Your task to perform on an android device: Search for vegetarian restaurants on Maps Image 0: 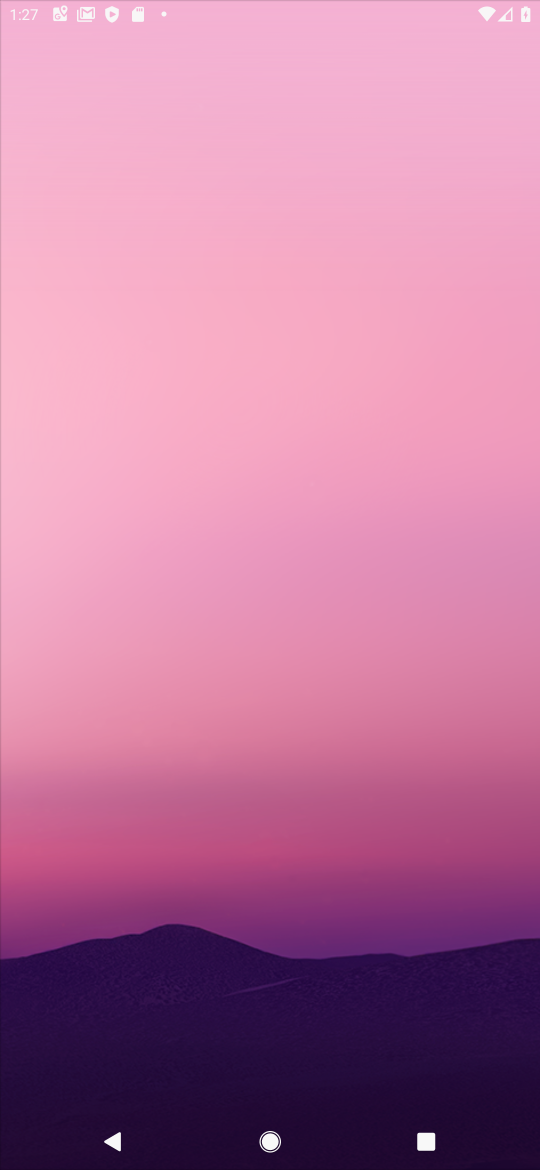
Step 0: press home button
Your task to perform on an android device: Search for vegetarian restaurants on Maps Image 1: 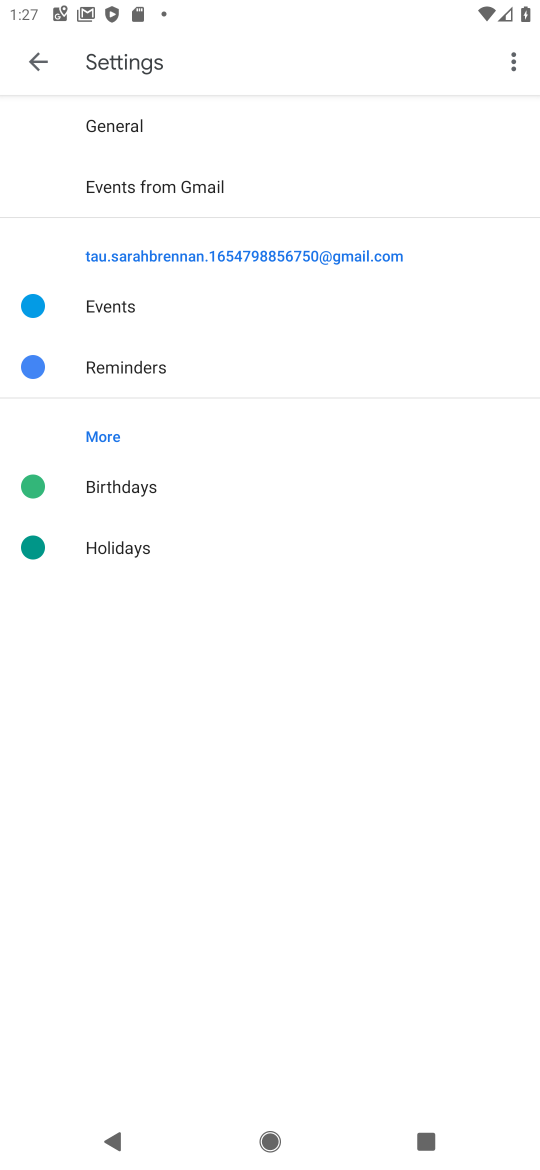
Step 1: drag from (225, 379) to (225, 209)
Your task to perform on an android device: Search for vegetarian restaurants on Maps Image 2: 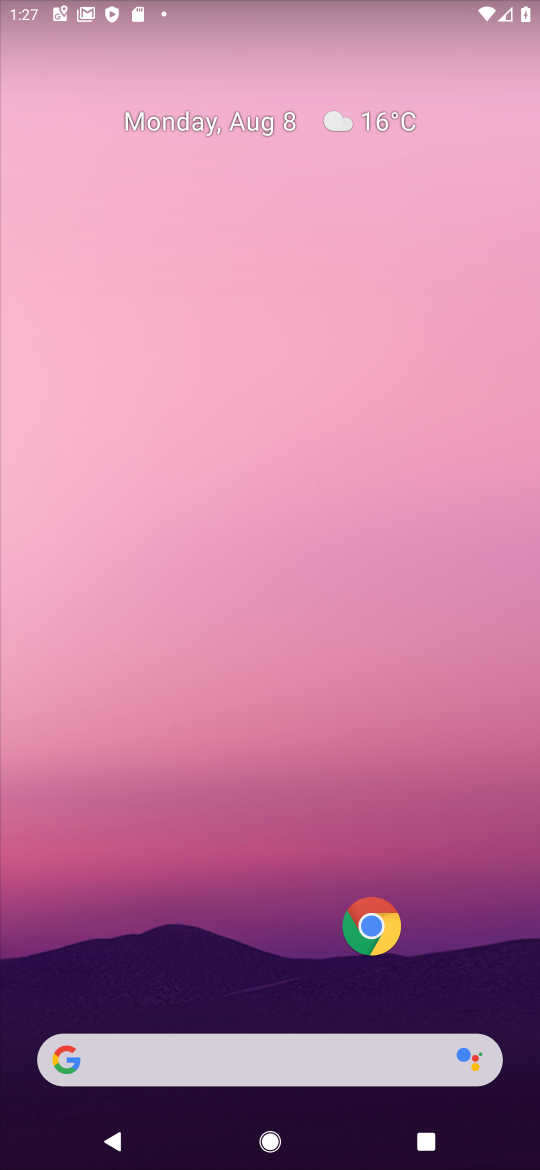
Step 2: drag from (263, 1005) to (302, 179)
Your task to perform on an android device: Search for vegetarian restaurants on Maps Image 3: 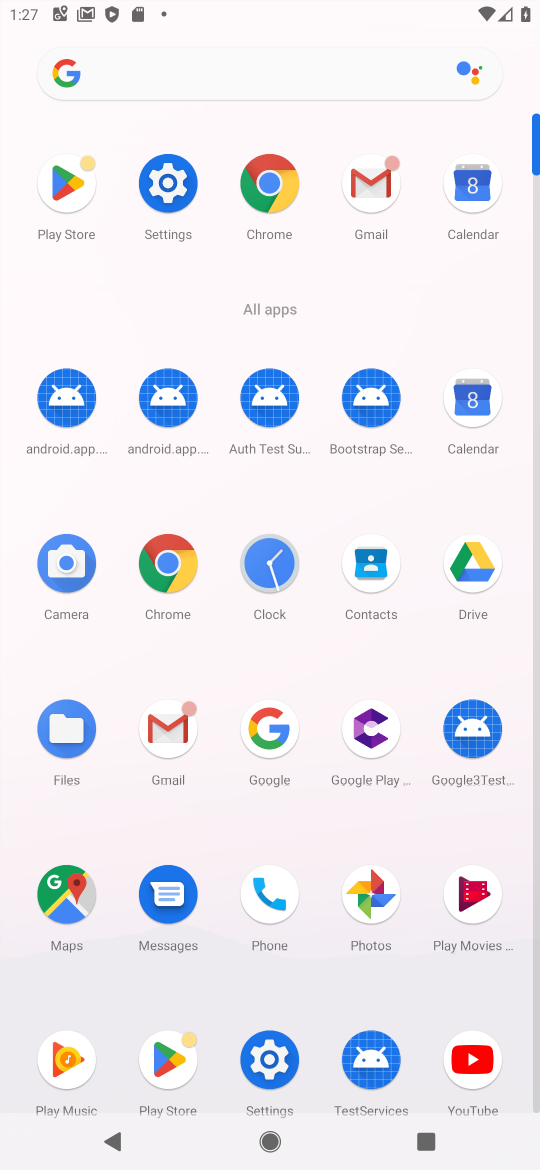
Step 3: click (161, 186)
Your task to perform on an android device: Search for vegetarian restaurants on Maps Image 4: 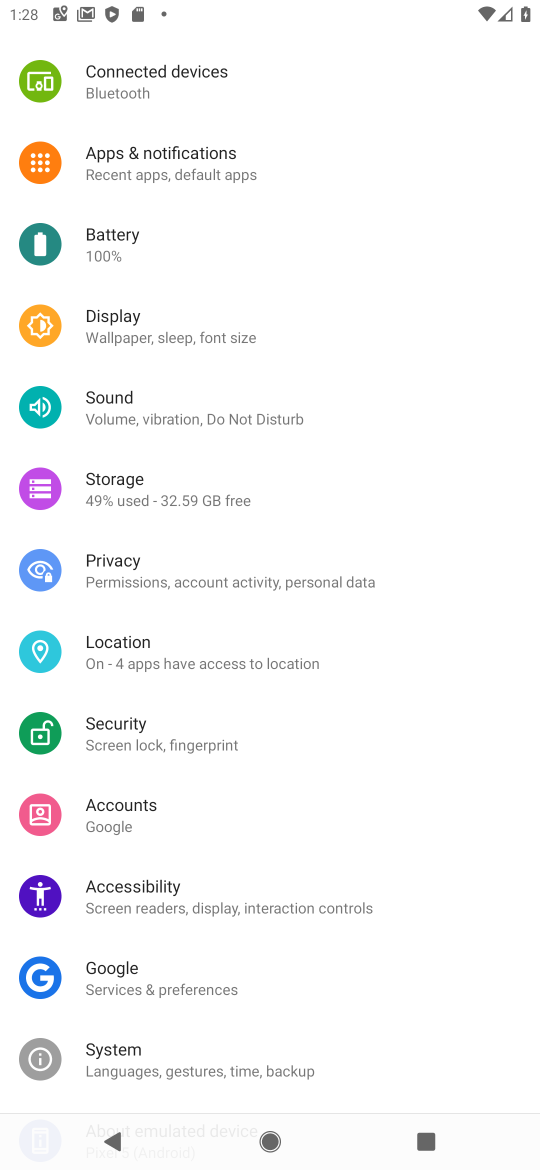
Step 4: press home button
Your task to perform on an android device: Search for vegetarian restaurants on Maps Image 5: 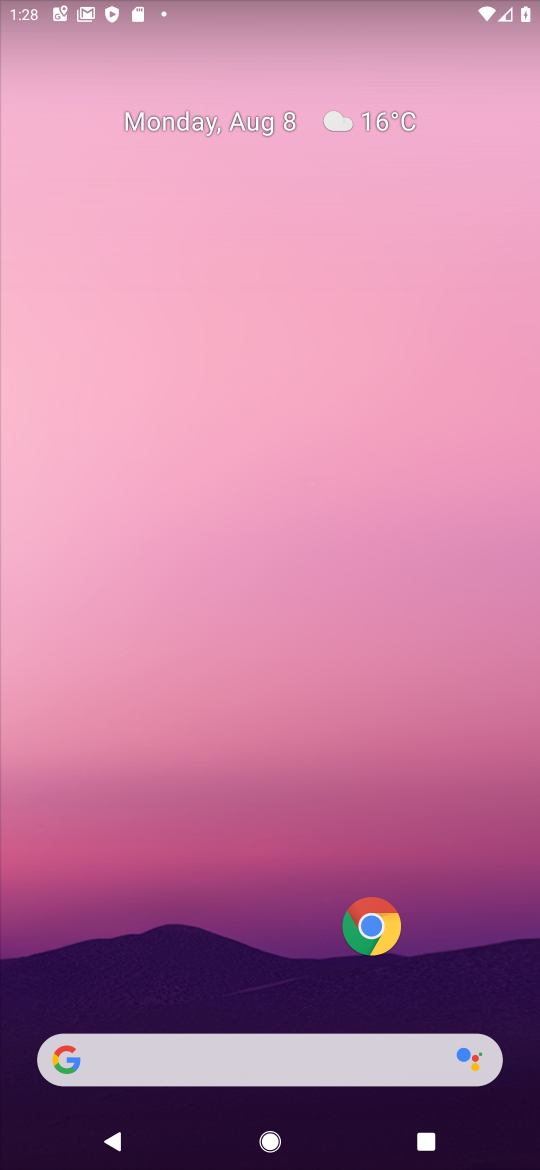
Step 5: drag from (223, 972) to (305, 224)
Your task to perform on an android device: Search for vegetarian restaurants on Maps Image 6: 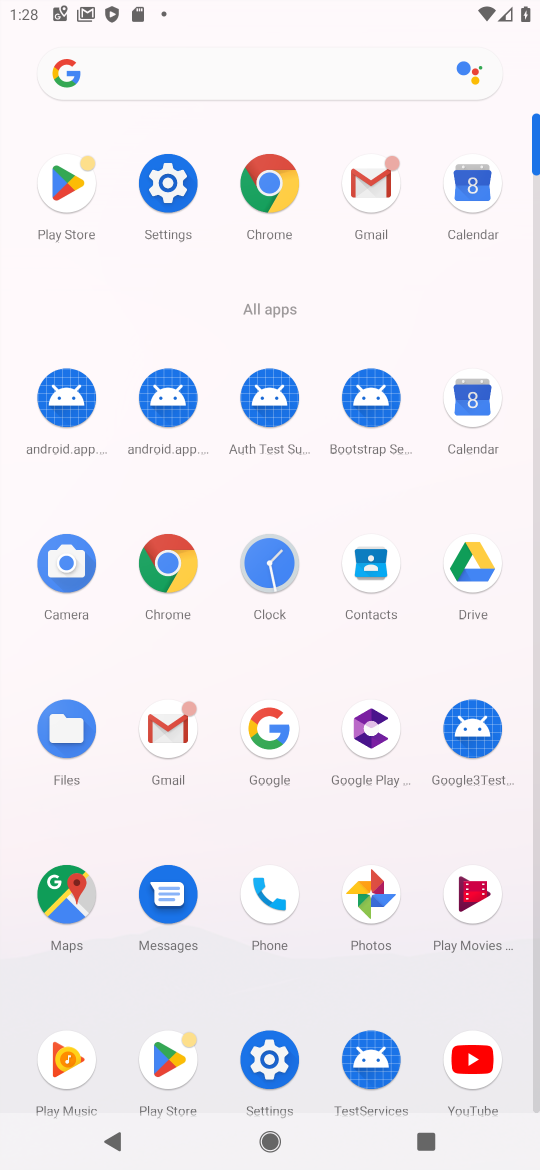
Step 6: click (73, 889)
Your task to perform on an android device: Search for vegetarian restaurants on Maps Image 7: 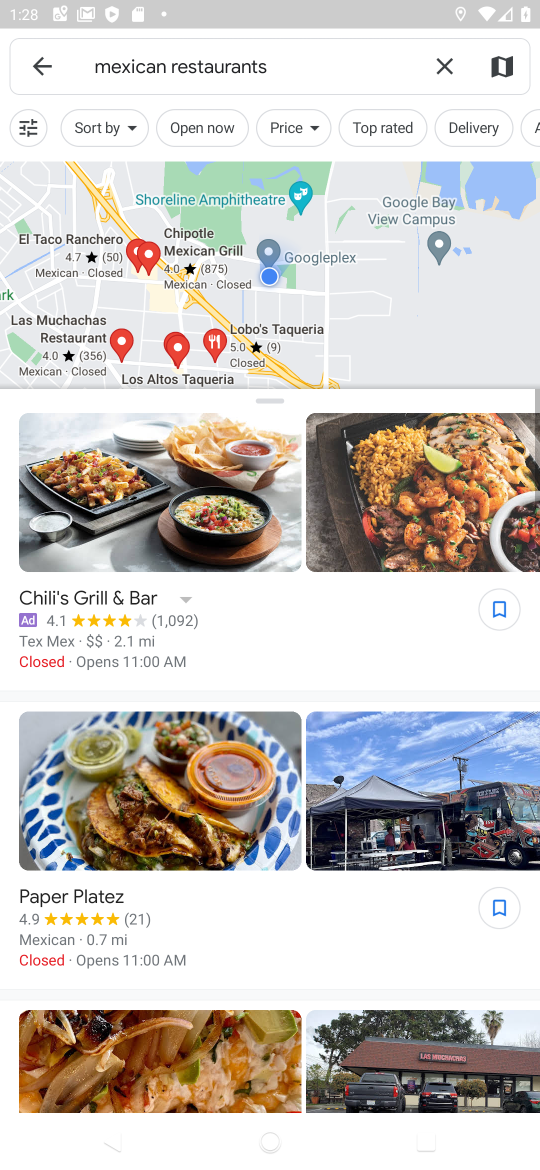
Step 7: click (443, 66)
Your task to perform on an android device: Search for vegetarian restaurants on Maps Image 8: 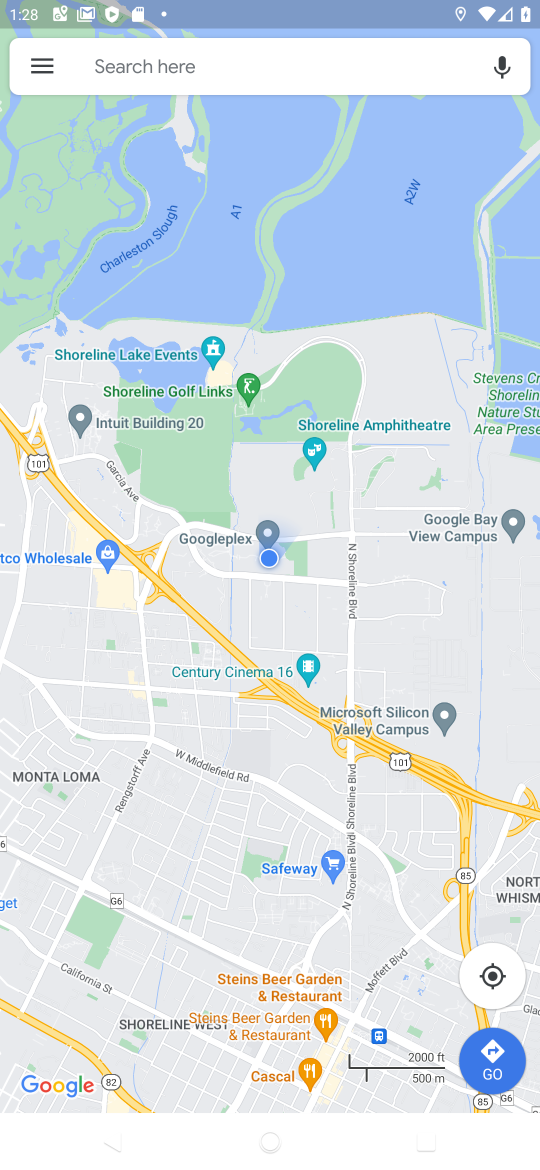
Step 8: click (307, 79)
Your task to perform on an android device: Search for vegetarian restaurants on Maps Image 9: 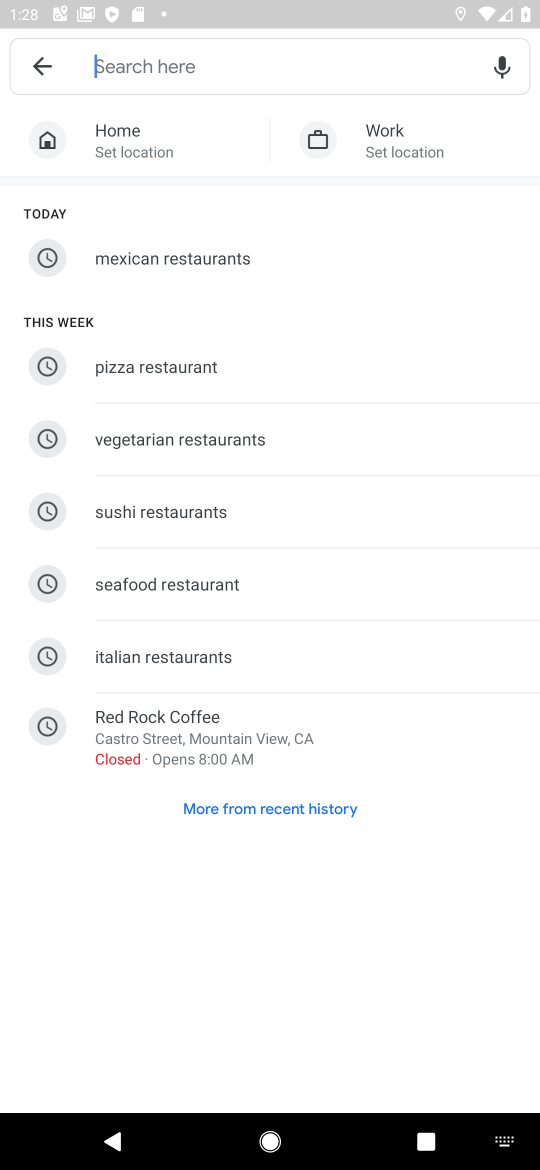
Step 9: click (222, 422)
Your task to perform on an android device: Search for vegetarian restaurants on Maps Image 10: 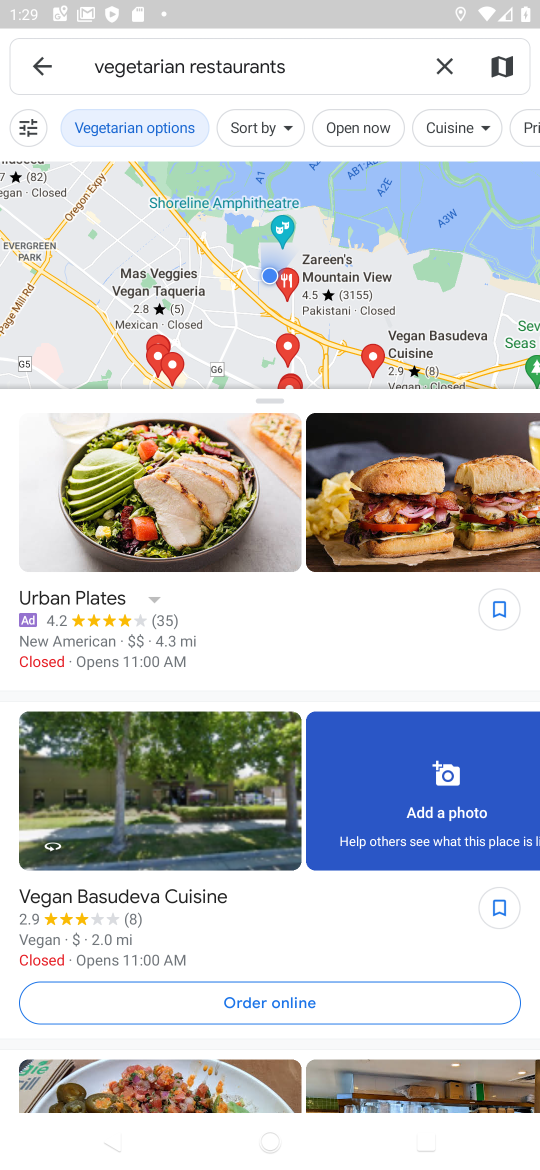
Step 10: task complete